Your task to perform on an android device: change the upload size in google photos Image 0: 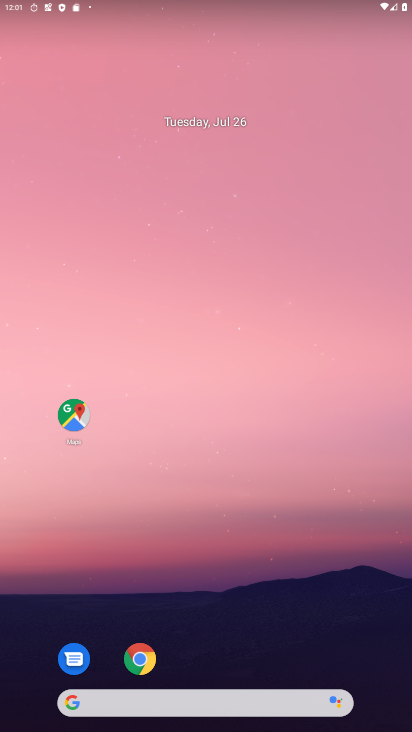
Step 0: drag from (211, 641) to (334, 8)
Your task to perform on an android device: change the upload size in google photos Image 1: 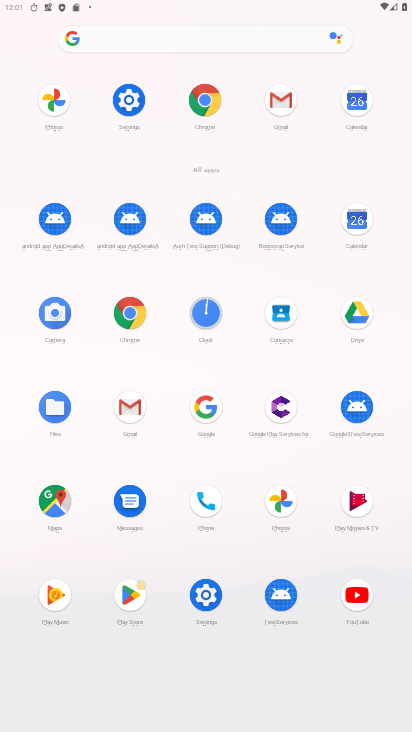
Step 1: click (277, 498)
Your task to perform on an android device: change the upload size in google photos Image 2: 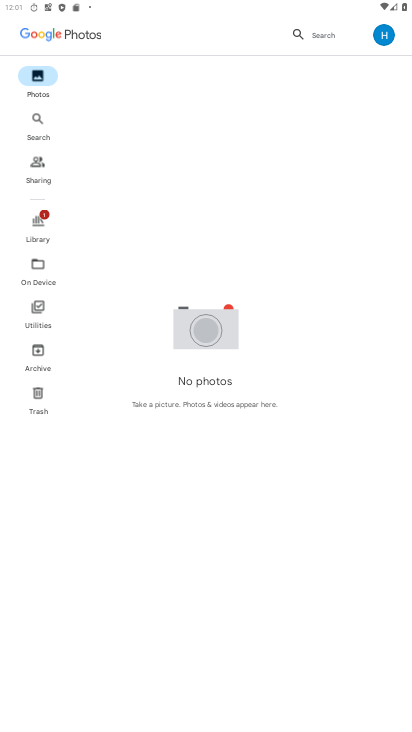
Step 2: click (379, 38)
Your task to perform on an android device: change the upload size in google photos Image 3: 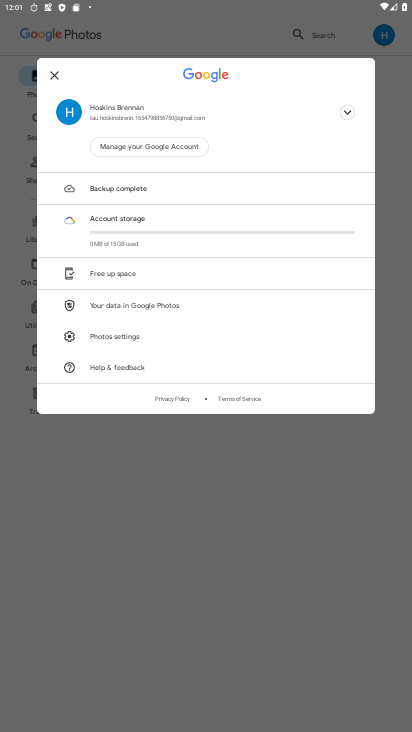
Step 3: click (118, 336)
Your task to perform on an android device: change the upload size in google photos Image 4: 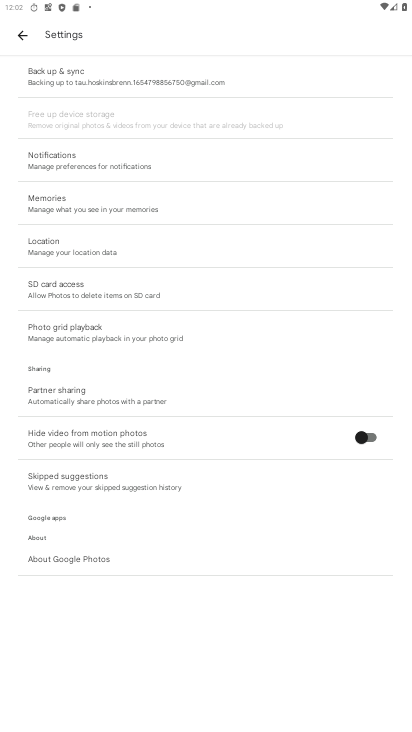
Step 4: click (77, 68)
Your task to perform on an android device: change the upload size in google photos Image 5: 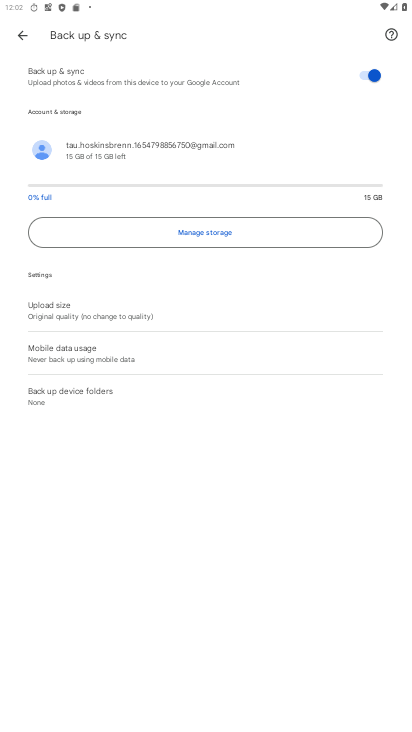
Step 5: click (119, 313)
Your task to perform on an android device: change the upload size in google photos Image 6: 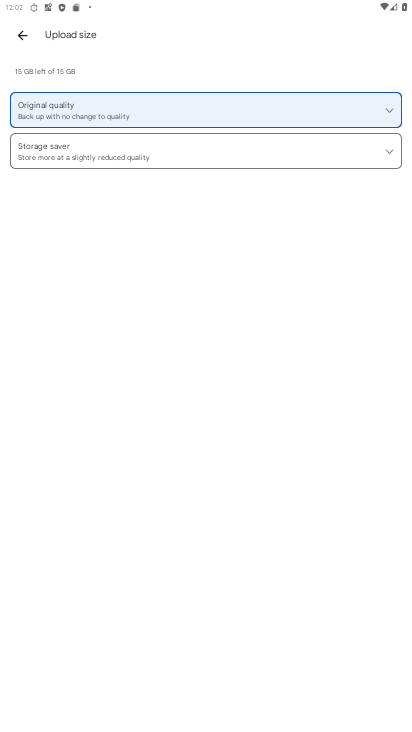
Step 6: click (151, 147)
Your task to perform on an android device: change the upload size in google photos Image 7: 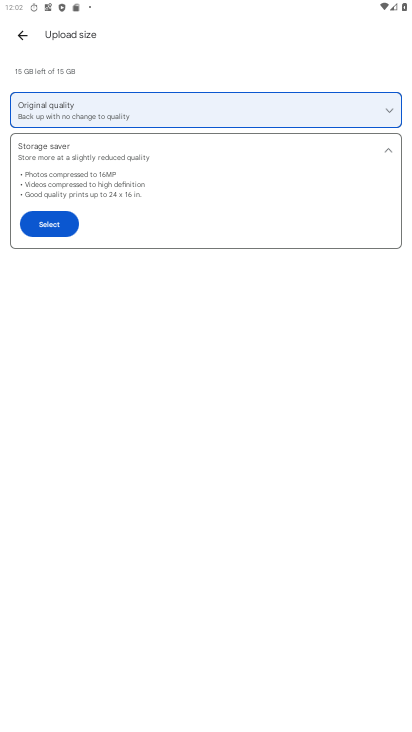
Step 7: click (57, 218)
Your task to perform on an android device: change the upload size in google photos Image 8: 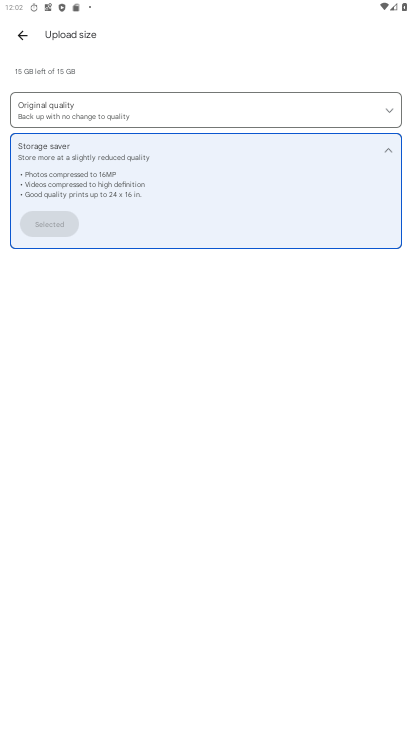
Step 8: task complete